Your task to perform on an android device: change the clock style Image 0: 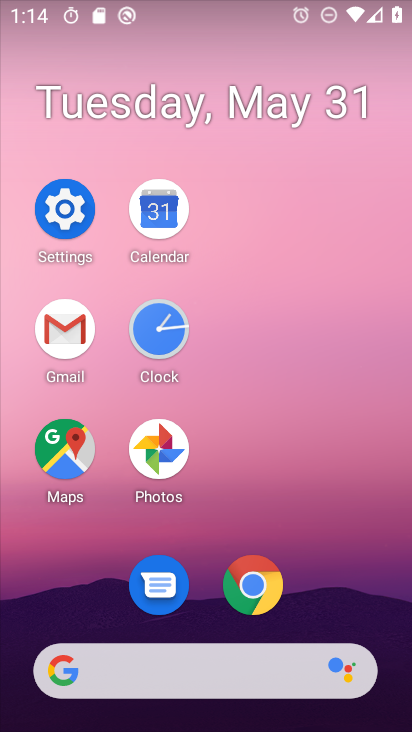
Step 0: click (175, 317)
Your task to perform on an android device: change the clock style Image 1: 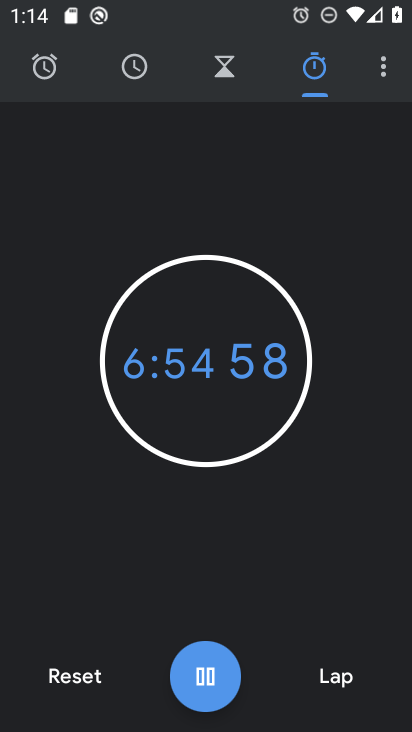
Step 1: click (385, 75)
Your task to perform on an android device: change the clock style Image 2: 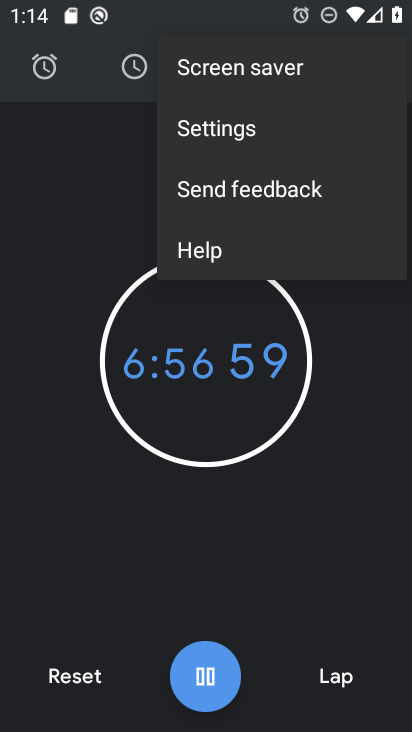
Step 2: click (248, 141)
Your task to perform on an android device: change the clock style Image 3: 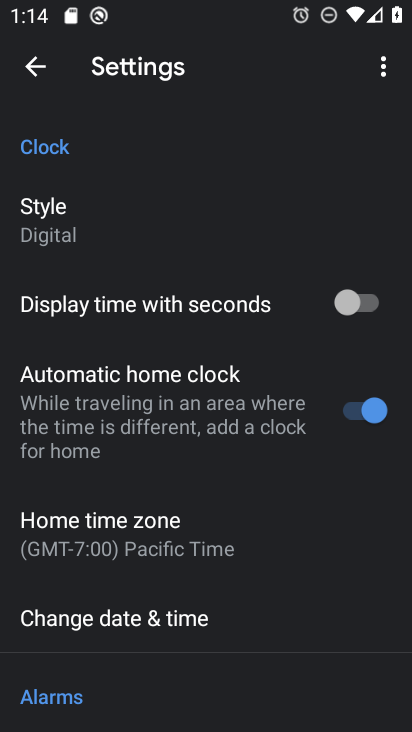
Step 3: click (74, 215)
Your task to perform on an android device: change the clock style Image 4: 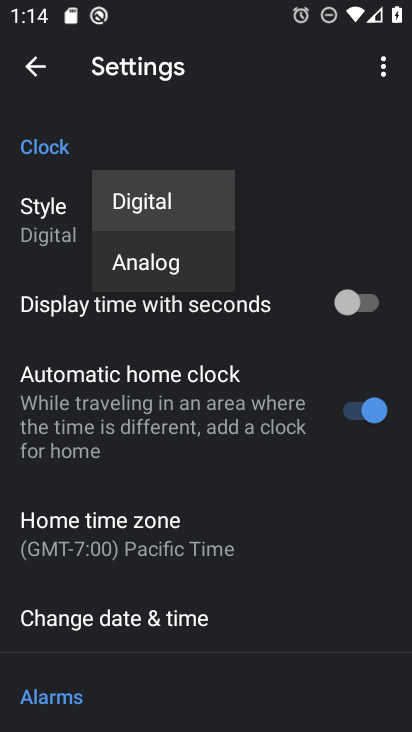
Step 4: click (179, 262)
Your task to perform on an android device: change the clock style Image 5: 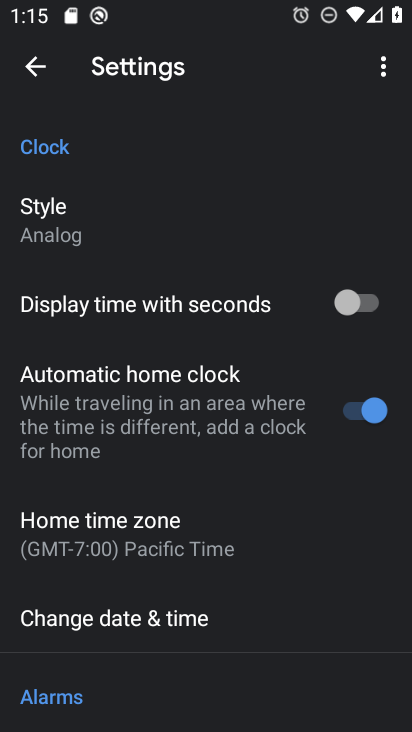
Step 5: task complete